Your task to perform on an android device: Open the most recent email from 'tau.brachiosaubr.1654798856750@gmail.com' Image 0: 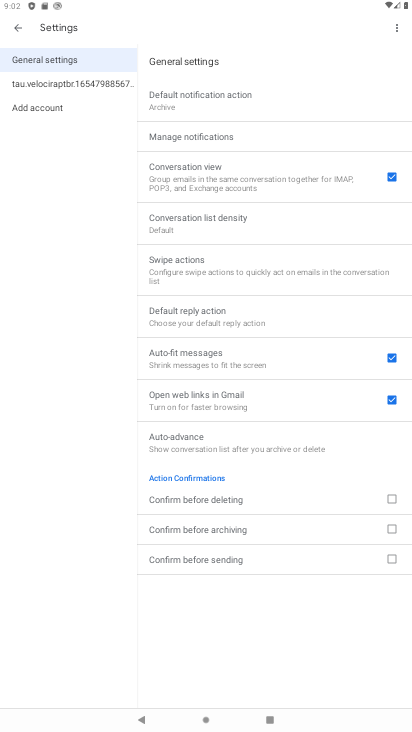
Step 0: press home button
Your task to perform on an android device: Open the most recent email from 'tau.brachiosaubr.1654798856750@gmail.com' Image 1: 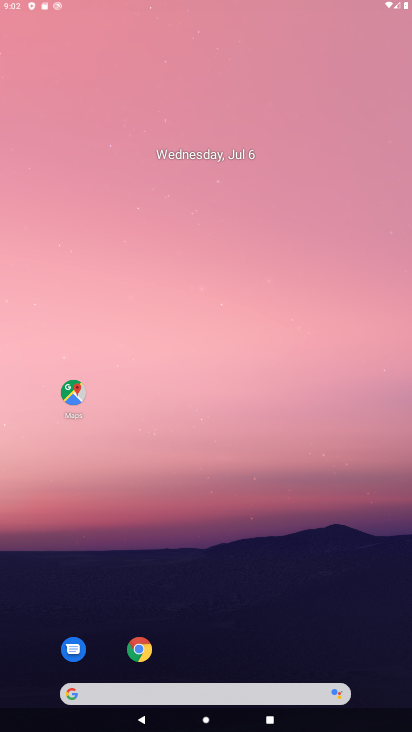
Step 1: drag from (256, 491) to (308, 63)
Your task to perform on an android device: Open the most recent email from 'tau.brachiosaubr.1654798856750@gmail.com' Image 2: 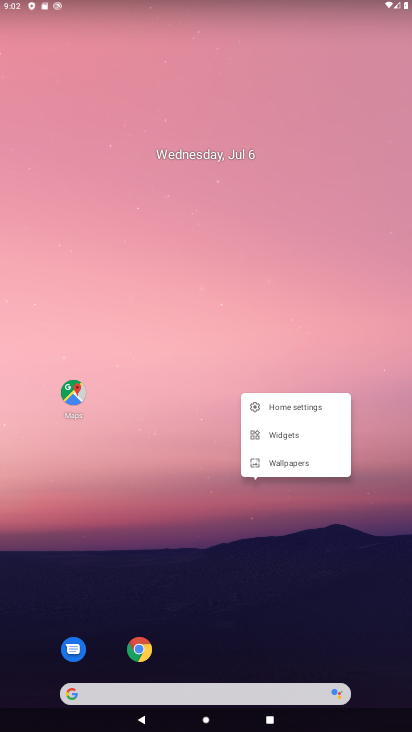
Step 2: click (180, 443)
Your task to perform on an android device: Open the most recent email from 'tau.brachiosaubr.1654798856750@gmail.com' Image 3: 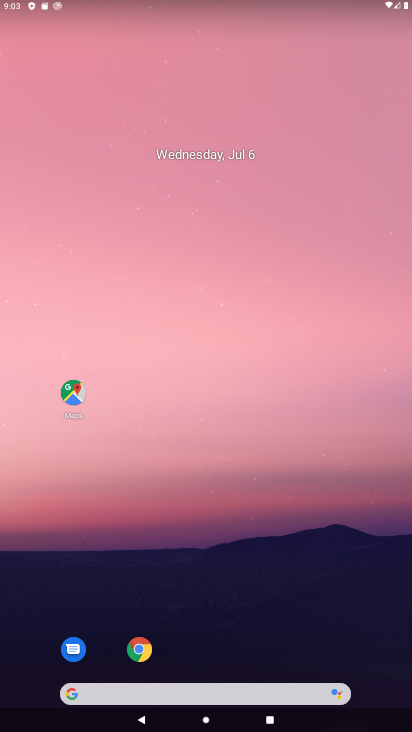
Step 3: drag from (232, 590) to (230, 71)
Your task to perform on an android device: Open the most recent email from 'tau.brachiosaubr.1654798856750@gmail.com' Image 4: 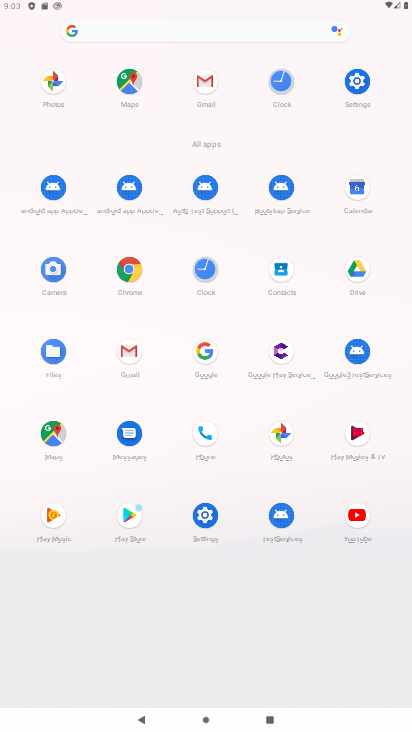
Step 4: click (194, 101)
Your task to perform on an android device: Open the most recent email from 'tau.brachiosaubr.1654798856750@gmail.com' Image 5: 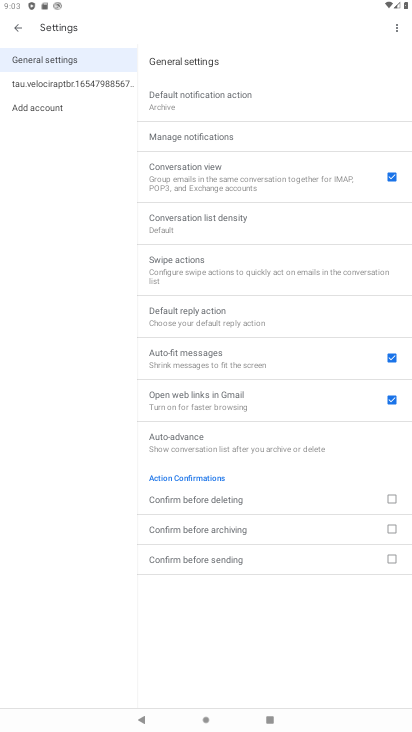
Step 5: press home button
Your task to perform on an android device: Open the most recent email from 'tau.brachiosaubr.1654798856750@gmail.com' Image 6: 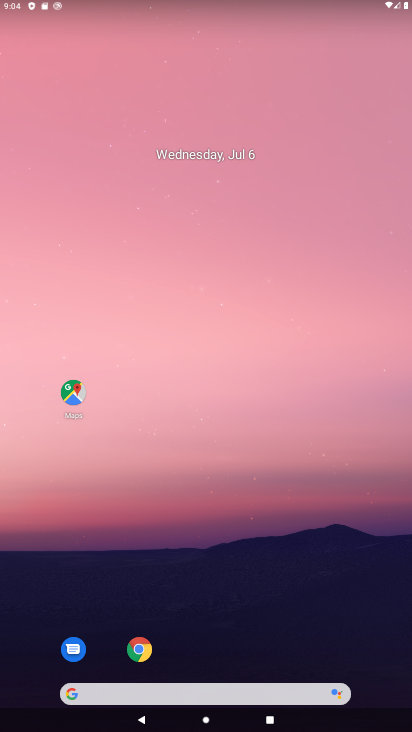
Step 6: drag from (286, 705) to (276, 146)
Your task to perform on an android device: Open the most recent email from 'tau.brachiosaubr.1654798856750@gmail.com' Image 7: 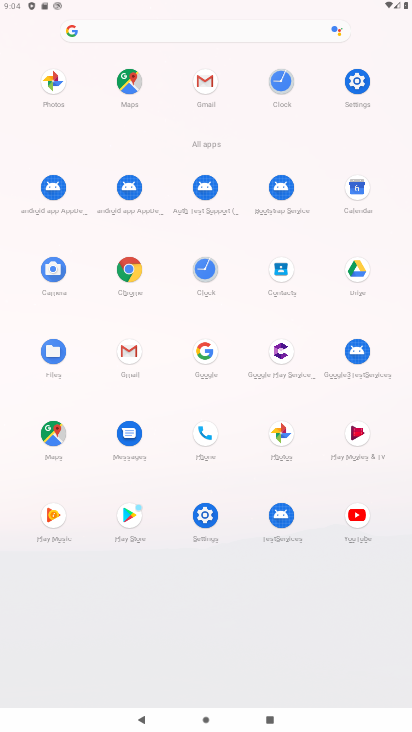
Step 7: click (191, 118)
Your task to perform on an android device: Open the most recent email from 'tau.brachiosaubr.1654798856750@gmail.com' Image 8: 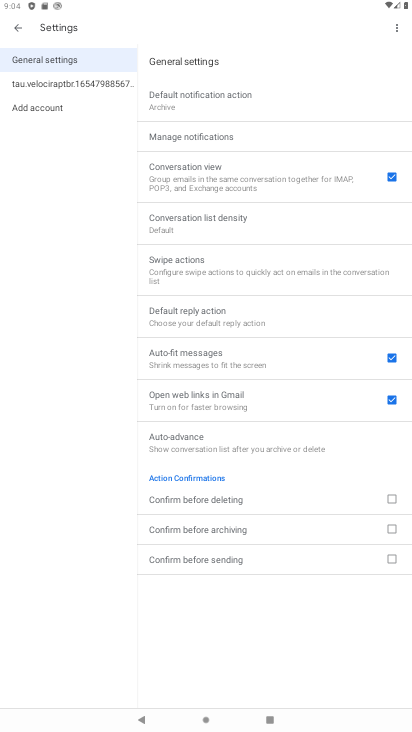
Step 8: press home button
Your task to perform on an android device: Open the most recent email from 'tau.brachiosaubr.1654798856750@gmail.com' Image 9: 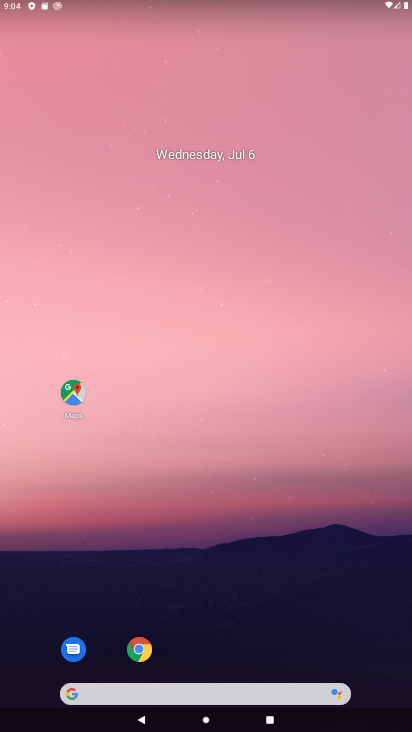
Step 9: drag from (270, 551) to (268, 82)
Your task to perform on an android device: Open the most recent email from 'tau.brachiosaubr.1654798856750@gmail.com' Image 10: 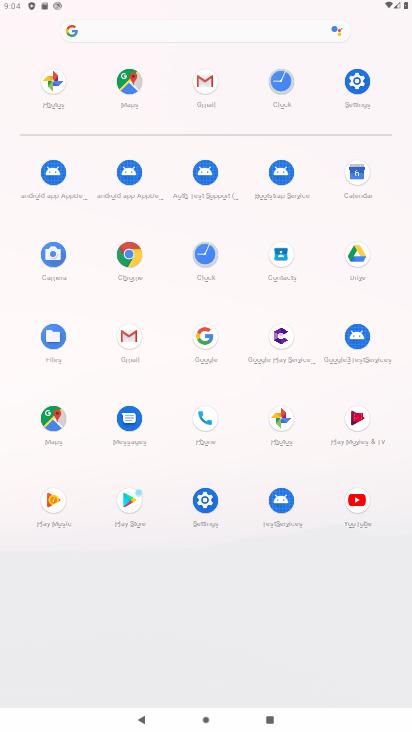
Step 10: click (204, 86)
Your task to perform on an android device: Open the most recent email from 'tau.brachiosaubr.1654798856750@gmail.com' Image 11: 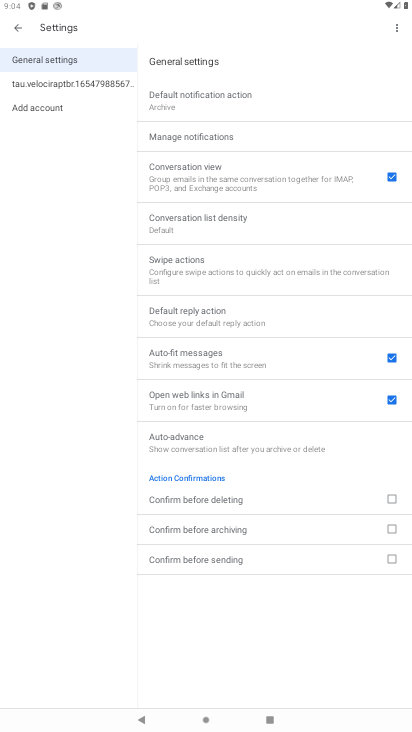
Step 11: click (19, 26)
Your task to perform on an android device: Open the most recent email from 'tau.brachiosaubr.1654798856750@gmail.com' Image 12: 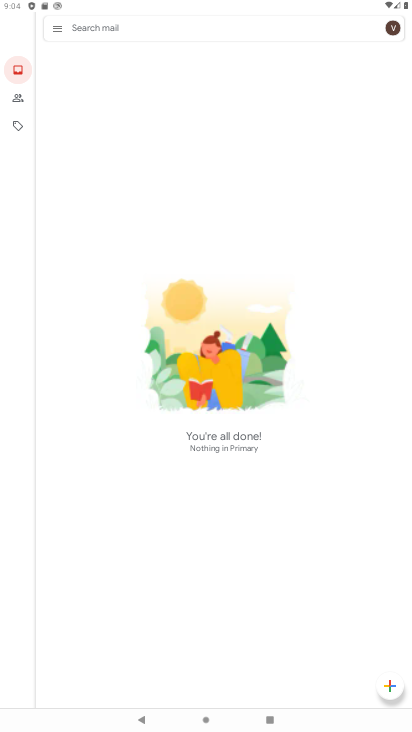
Step 12: task complete